Your task to perform on an android device: open sync settings in chrome Image 0: 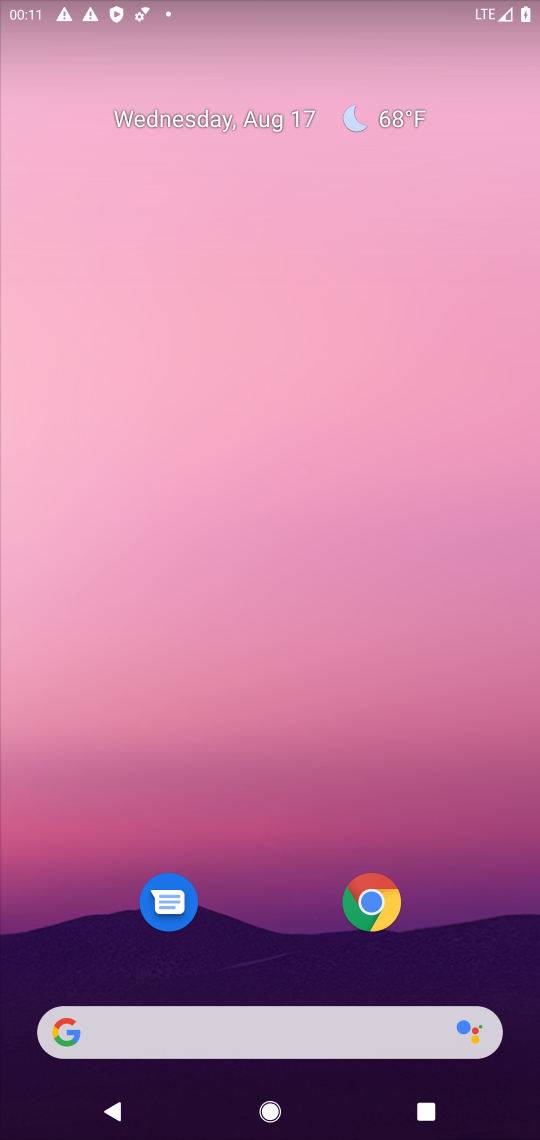
Step 0: drag from (238, 977) to (309, 1)
Your task to perform on an android device: open sync settings in chrome Image 1: 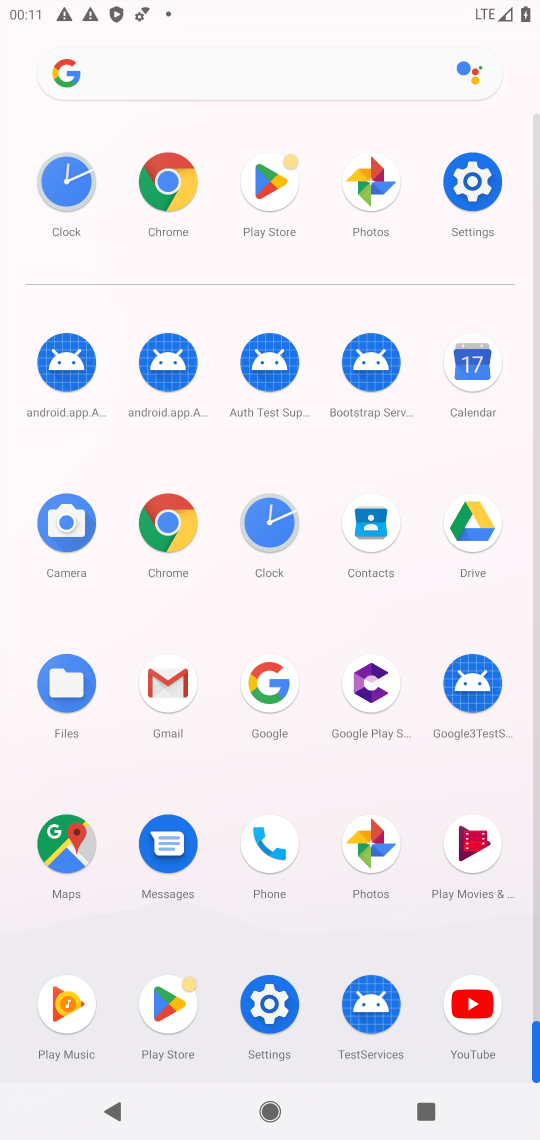
Step 1: click (158, 523)
Your task to perform on an android device: open sync settings in chrome Image 2: 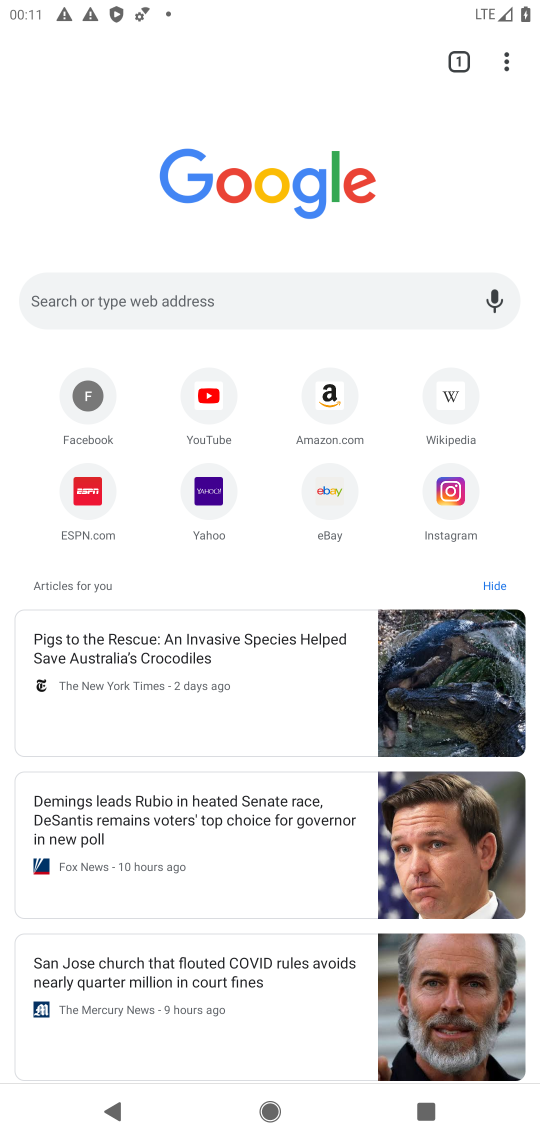
Step 2: click (502, 62)
Your task to perform on an android device: open sync settings in chrome Image 3: 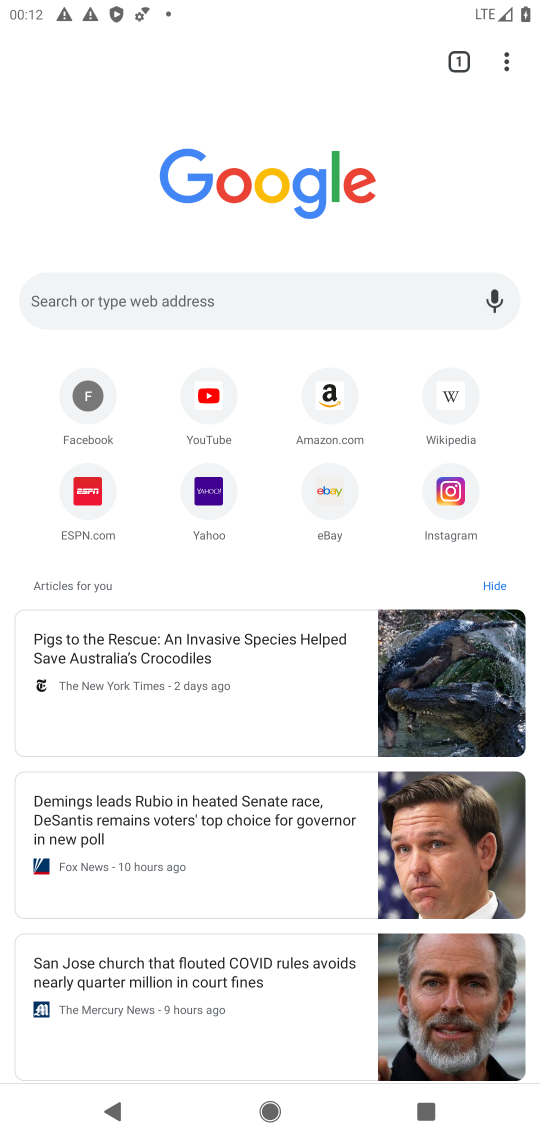
Step 3: click (513, 58)
Your task to perform on an android device: open sync settings in chrome Image 4: 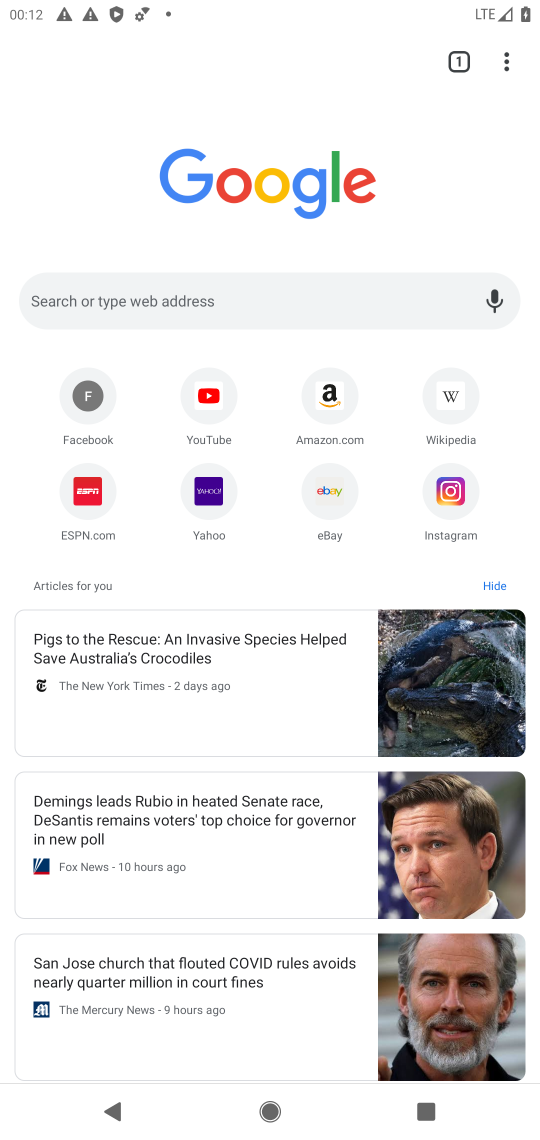
Step 4: click (504, 58)
Your task to perform on an android device: open sync settings in chrome Image 5: 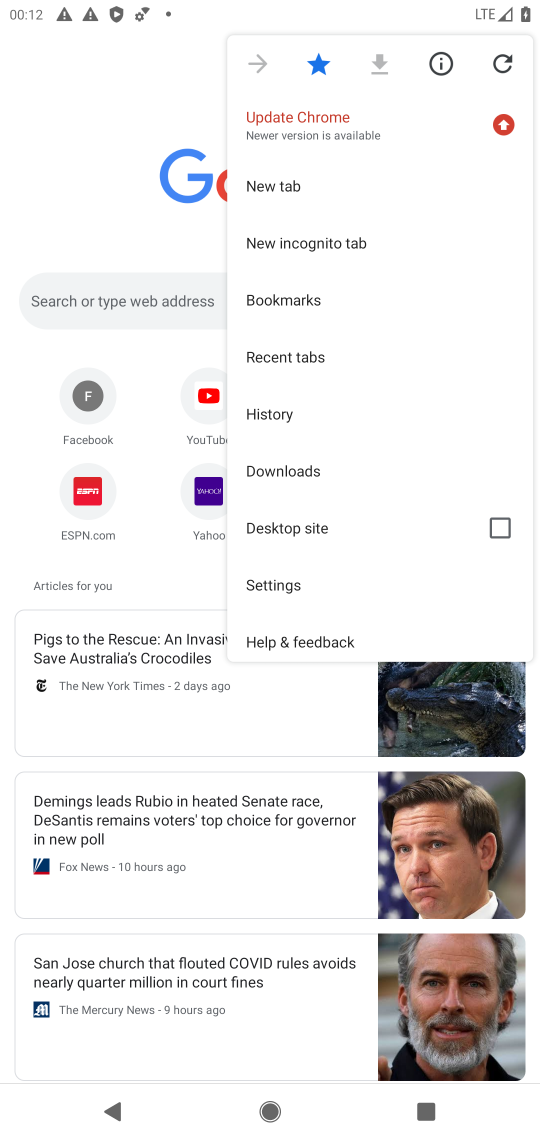
Step 5: click (300, 580)
Your task to perform on an android device: open sync settings in chrome Image 6: 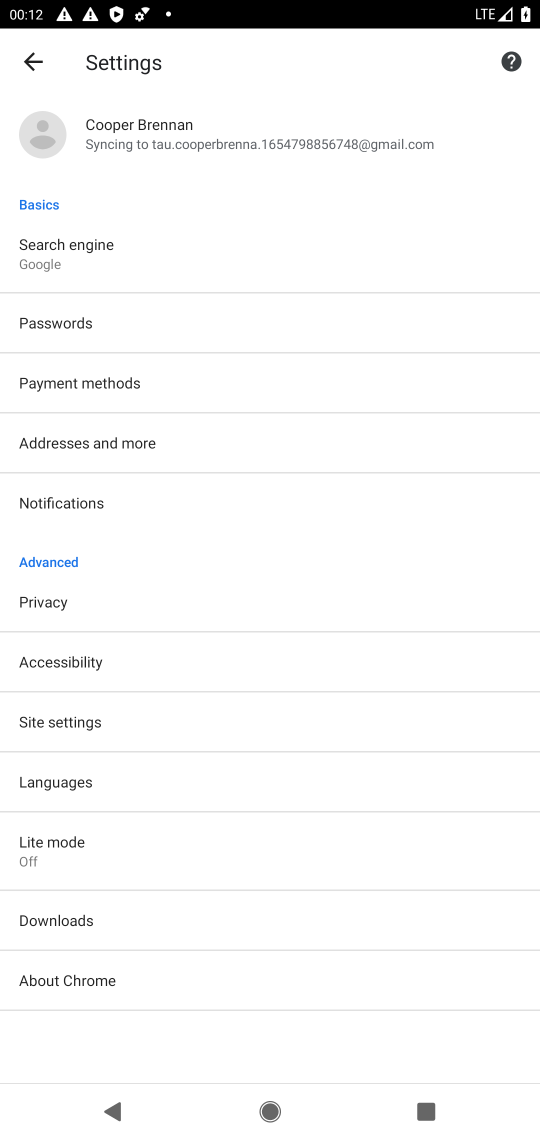
Step 6: click (201, 147)
Your task to perform on an android device: open sync settings in chrome Image 7: 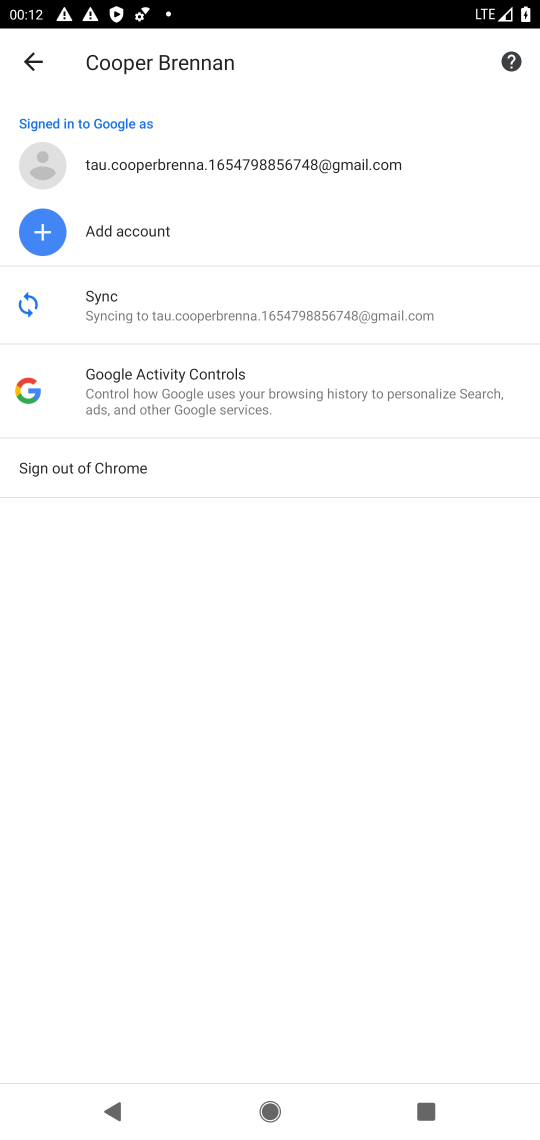
Step 7: click (216, 315)
Your task to perform on an android device: open sync settings in chrome Image 8: 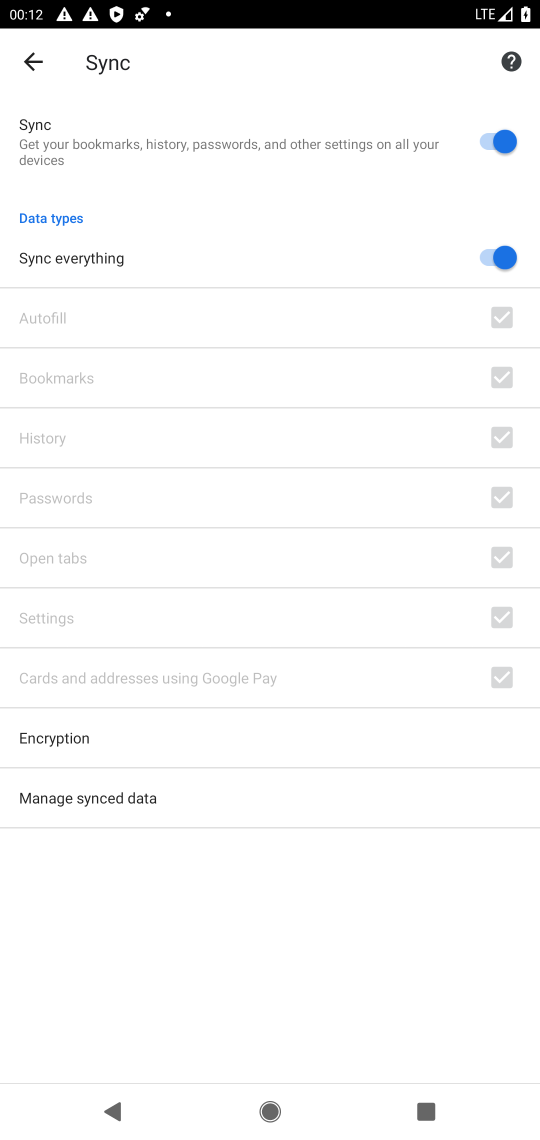
Step 8: task complete